Your task to perform on an android device: Clear the shopping cart on ebay. Add razer naga to the cart on ebay, then select checkout. Image 0: 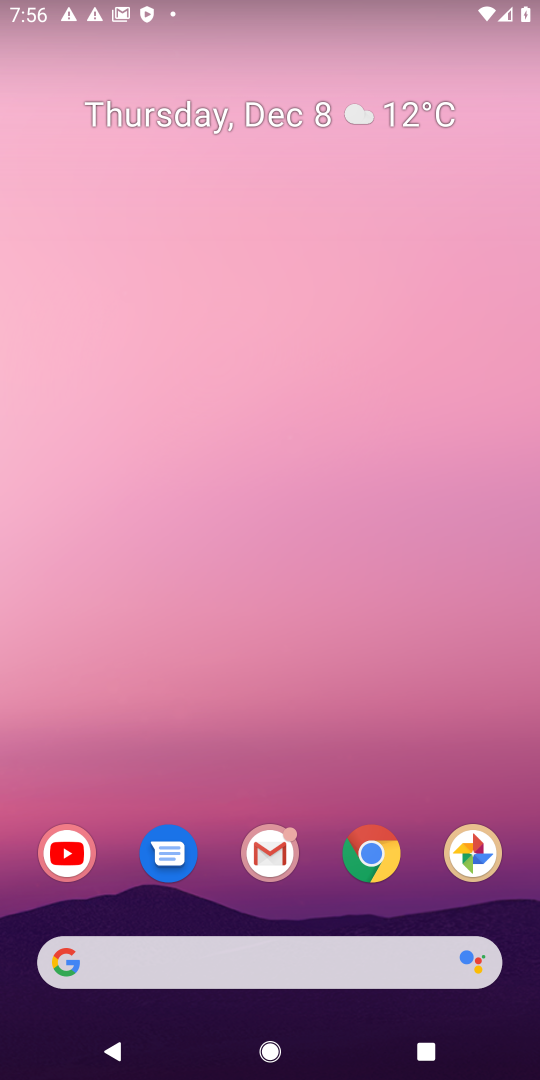
Step 0: click (259, 945)
Your task to perform on an android device: Clear the shopping cart on ebay. Add razer naga to the cart on ebay, then select checkout. Image 1: 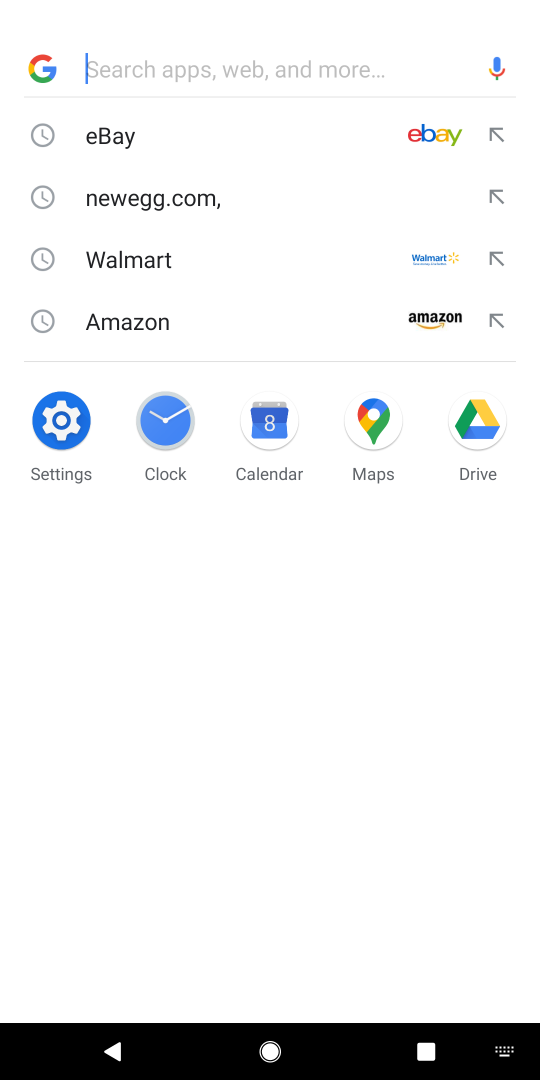
Step 1: click (118, 142)
Your task to perform on an android device: Clear the shopping cart on ebay. Add razer naga to the cart on ebay, then select checkout. Image 2: 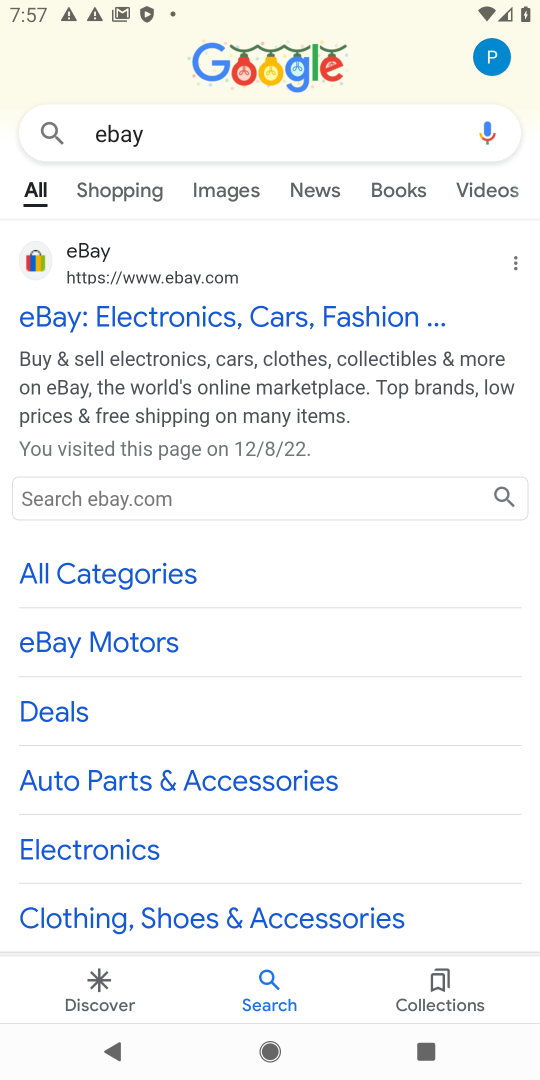
Step 2: click (147, 315)
Your task to perform on an android device: Clear the shopping cart on ebay. Add razer naga to the cart on ebay, then select checkout. Image 3: 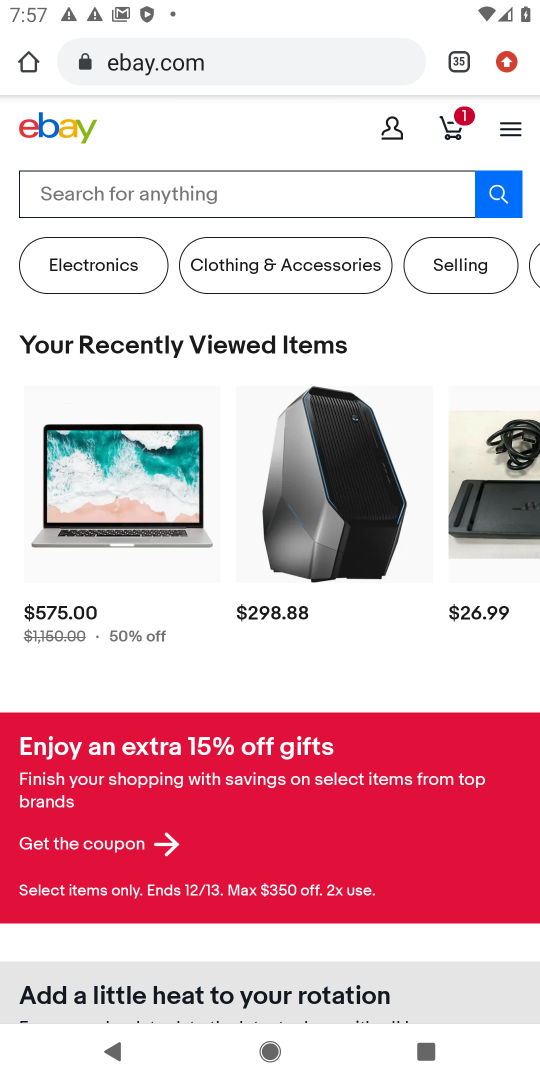
Step 3: click (451, 121)
Your task to perform on an android device: Clear the shopping cart on ebay. Add razer naga to the cart on ebay, then select checkout. Image 4: 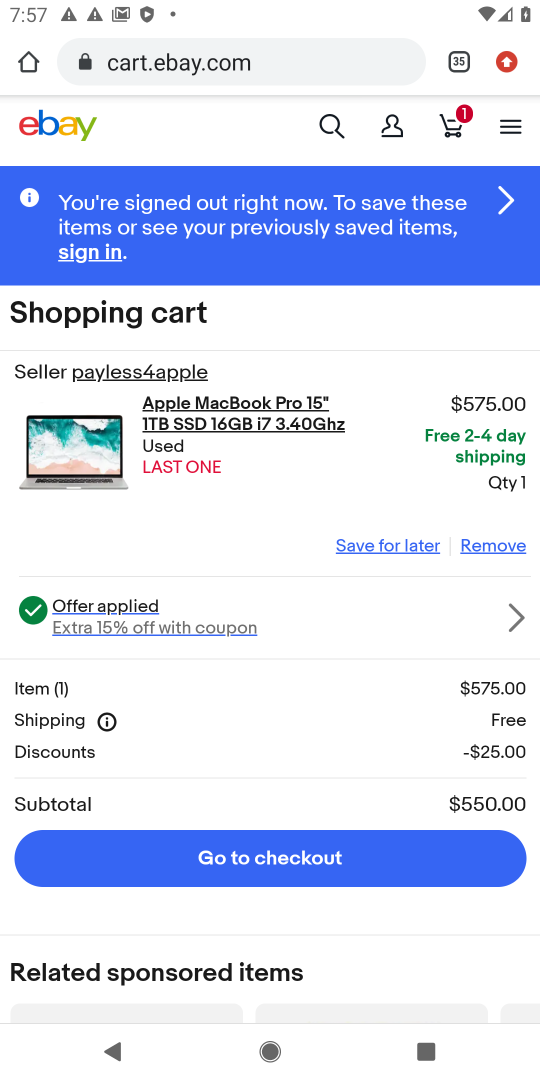
Step 4: click (450, 113)
Your task to perform on an android device: Clear the shopping cart on ebay. Add razer naga to the cart on ebay, then select checkout. Image 5: 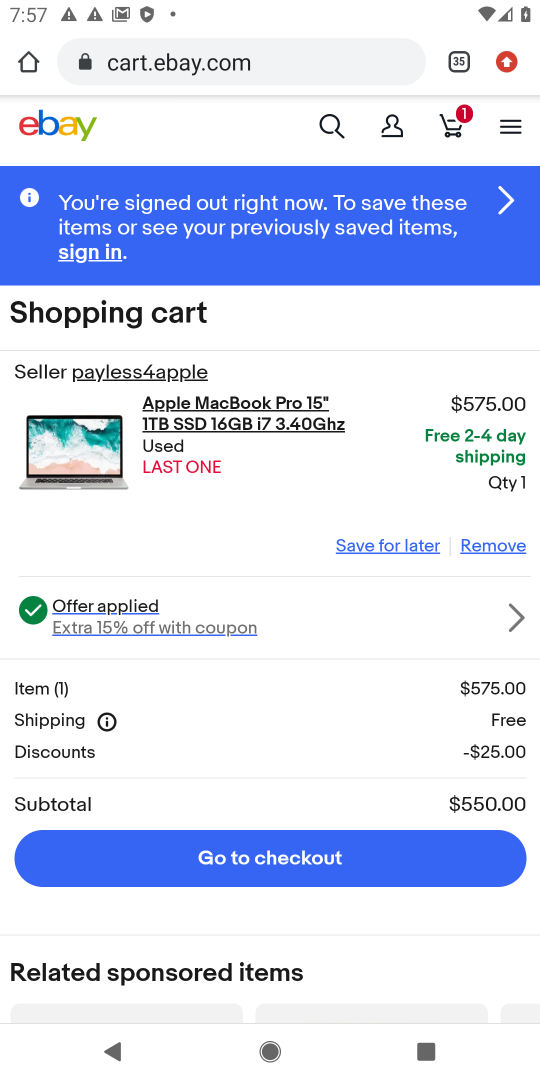
Step 5: click (487, 546)
Your task to perform on an android device: Clear the shopping cart on ebay. Add razer naga to the cart on ebay, then select checkout. Image 6: 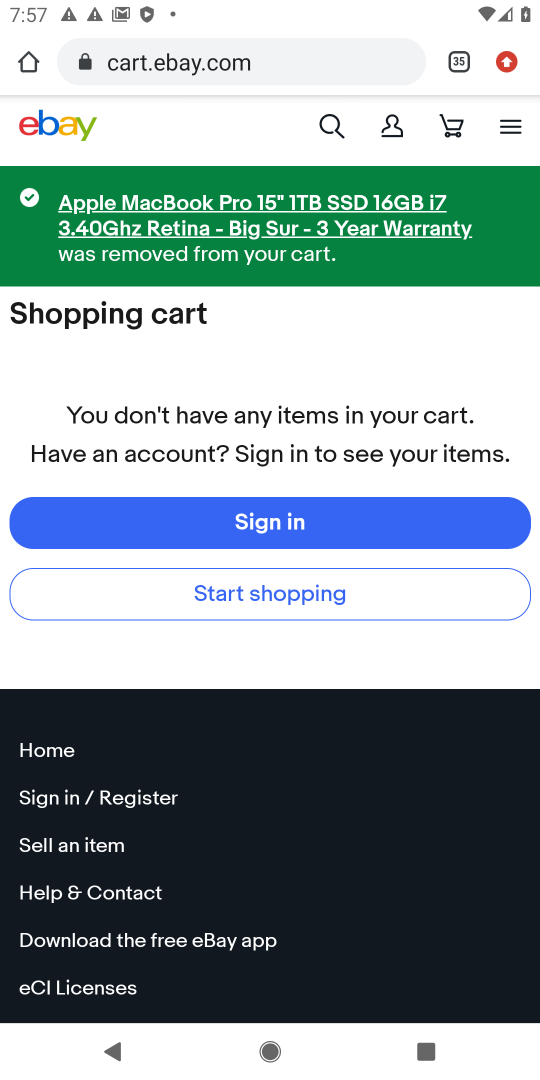
Step 6: click (319, 120)
Your task to perform on an android device: Clear the shopping cart on ebay. Add razer naga to the cart on ebay, then select checkout. Image 7: 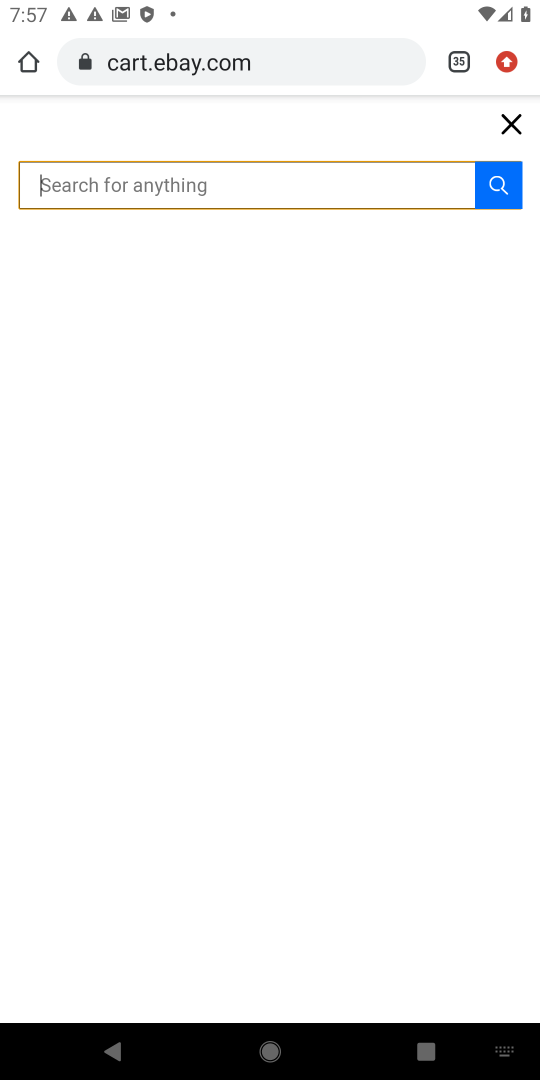
Step 7: type "razer naga"
Your task to perform on an android device: Clear the shopping cart on ebay. Add razer naga to the cart on ebay, then select checkout. Image 8: 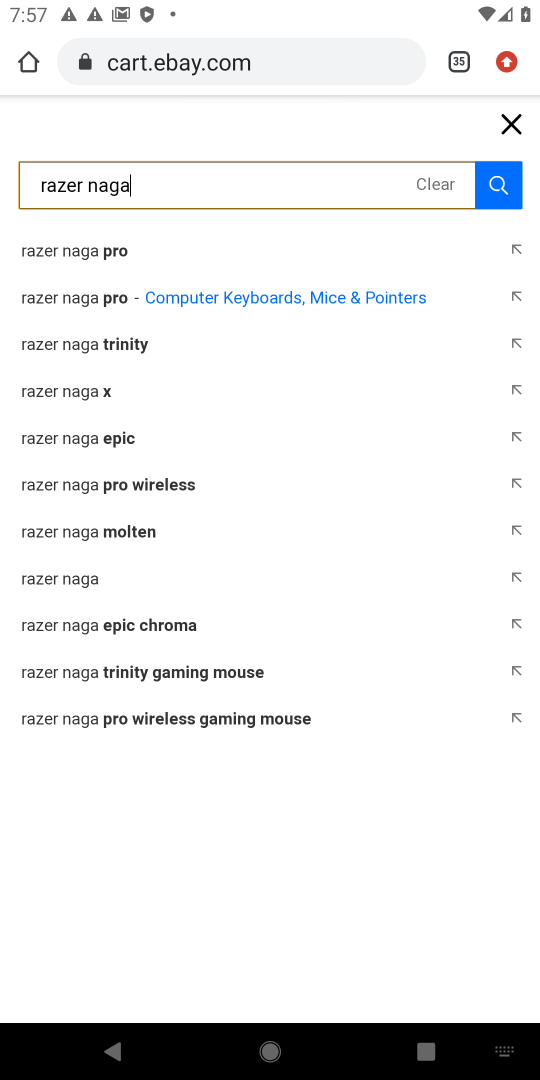
Step 8: click (50, 575)
Your task to perform on an android device: Clear the shopping cart on ebay. Add razer naga to the cart on ebay, then select checkout. Image 9: 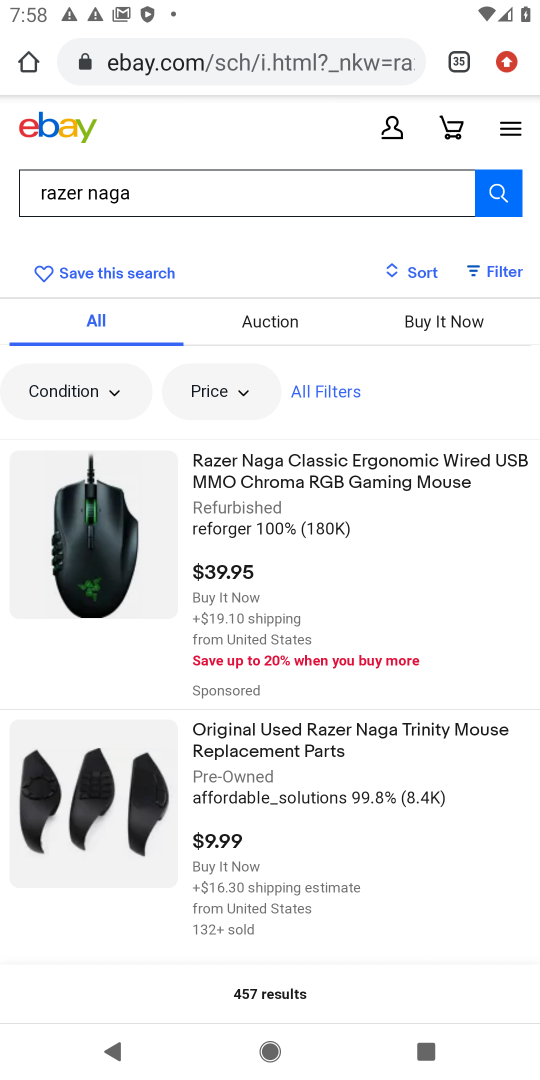
Step 9: click (266, 479)
Your task to perform on an android device: Clear the shopping cart on ebay. Add razer naga to the cart on ebay, then select checkout. Image 10: 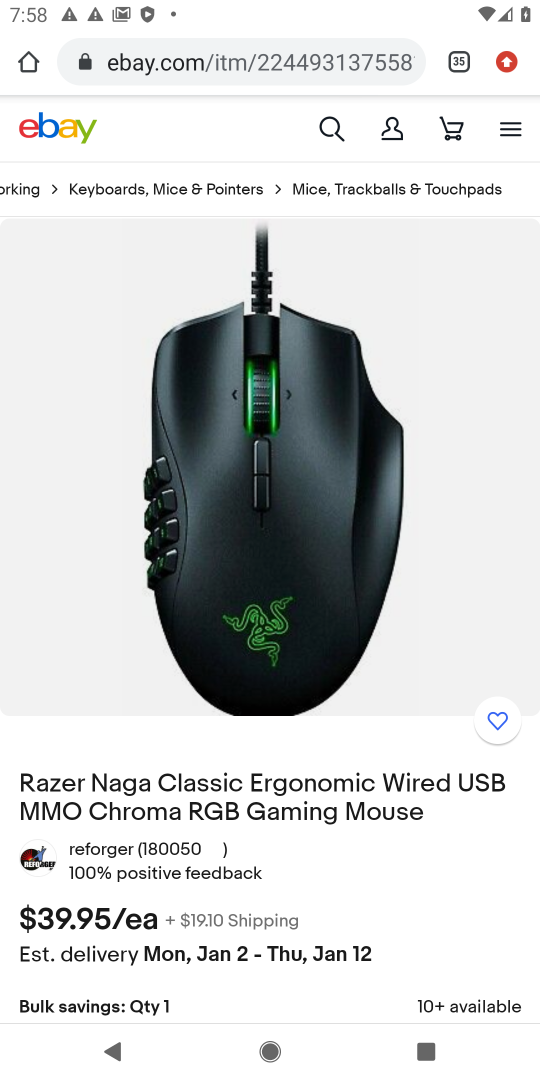
Step 10: drag from (382, 659) to (372, 365)
Your task to perform on an android device: Clear the shopping cart on ebay. Add razer naga to the cart on ebay, then select checkout. Image 11: 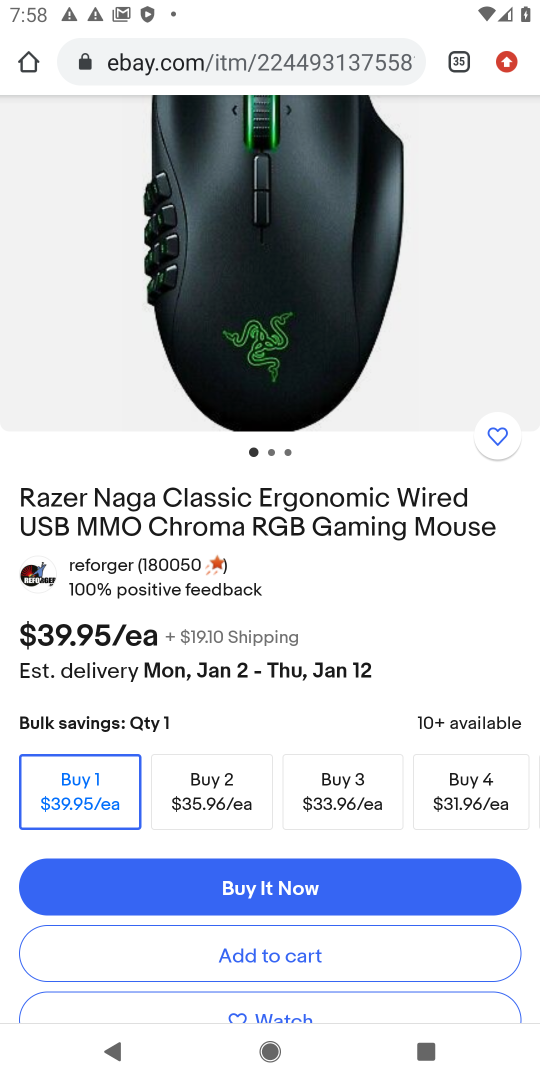
Step 11: click (266, 946)
Your task to perform on an android device: Clear the shopping cart on ebay. Add razer naga to the cart on ebay, then select checkout. Image 12: 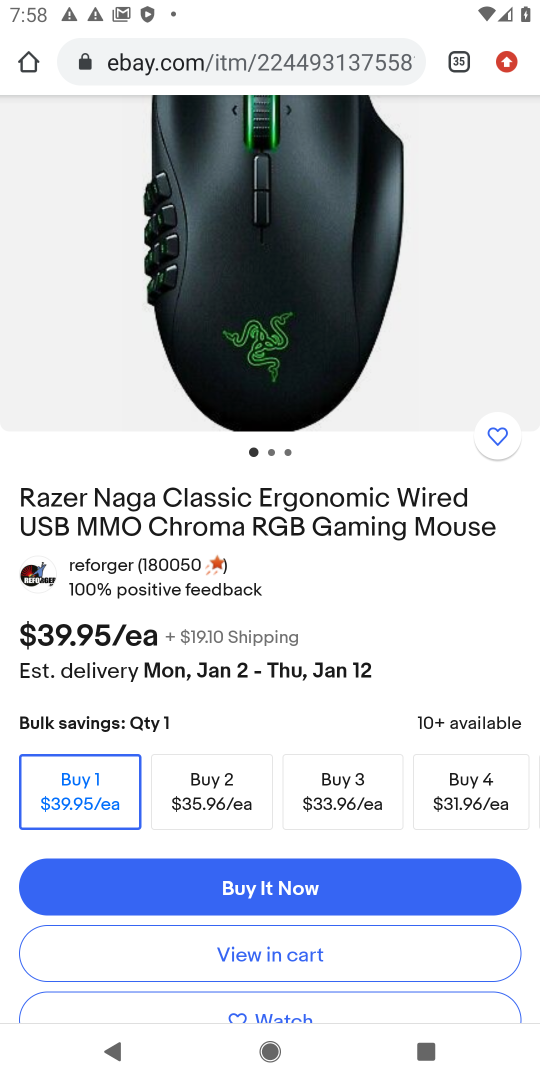
Step 12: click (276, 962)
Your task to perform on an android device: Clear the shopping cart on ebay. Add razer naga to the cart on ebay, then select checkout. Image 13: 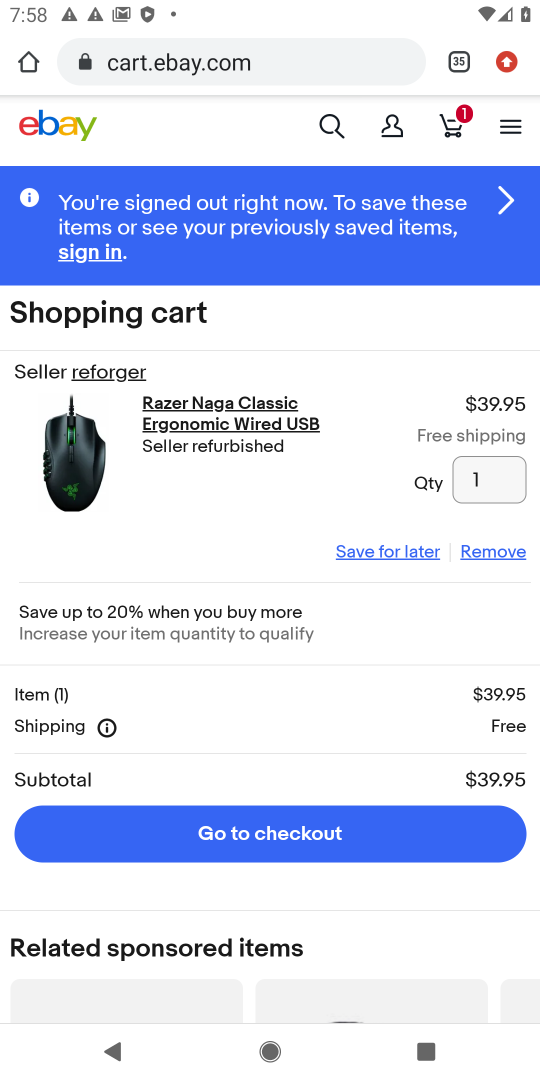
Step 13: click (278, 828)
Your task to perform on an android device: Clear the shopping cart on ebay. Add razer naga to the cart on ebay, then select checkout. Image 14: 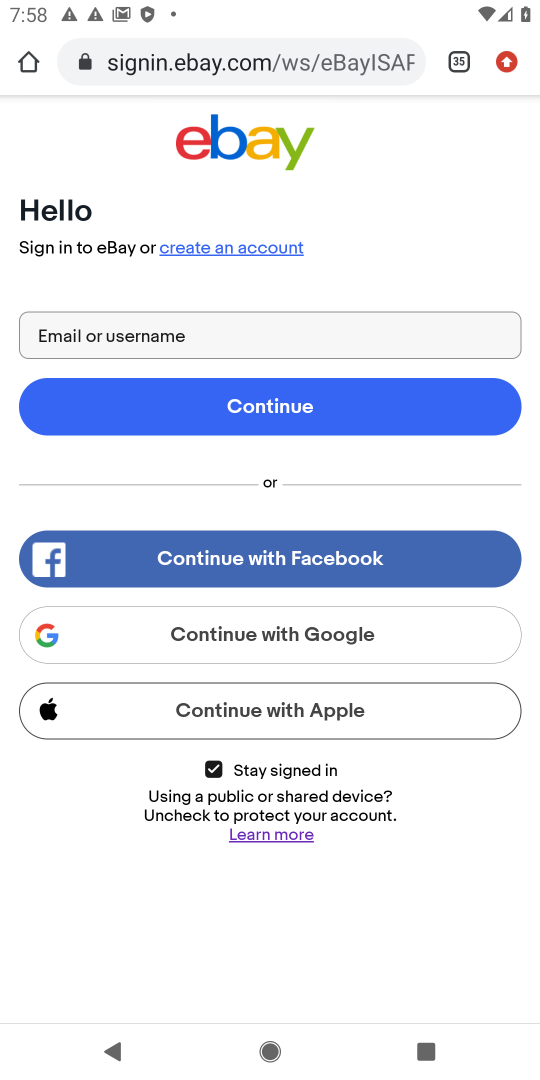
Step 14: task complete